Your task to perform on an android device: open the mobile data screen to see how much data has been used Image 0: 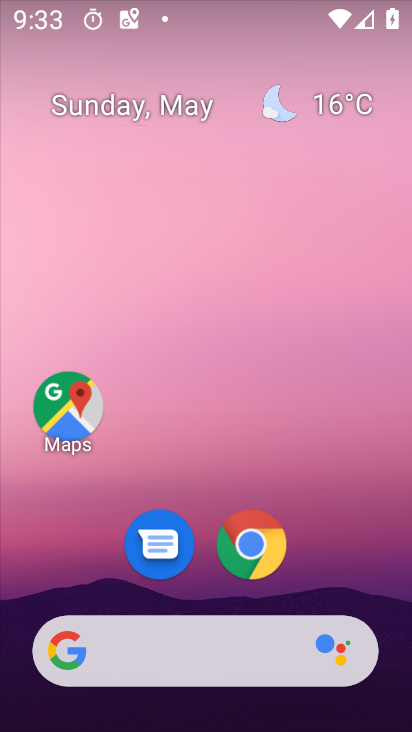
Step 0: click (298, 68)
Your task to perform on an android device: open the mobile data screen to see how much data has been used Image 1: 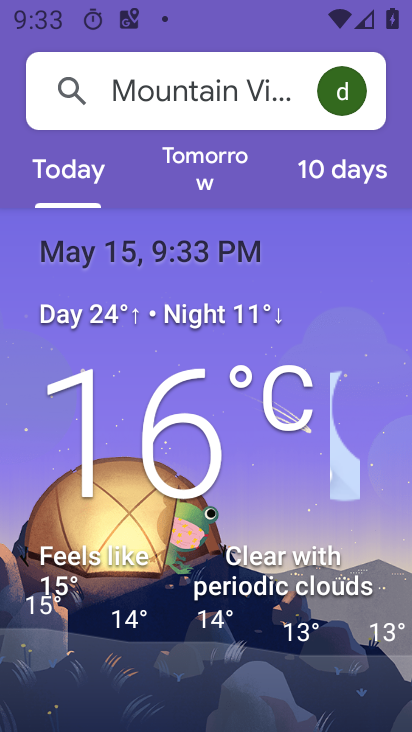
Step 1: press home button
Your task to perform on an android device: open the mobile data screen to see how much data has been used Image 2: 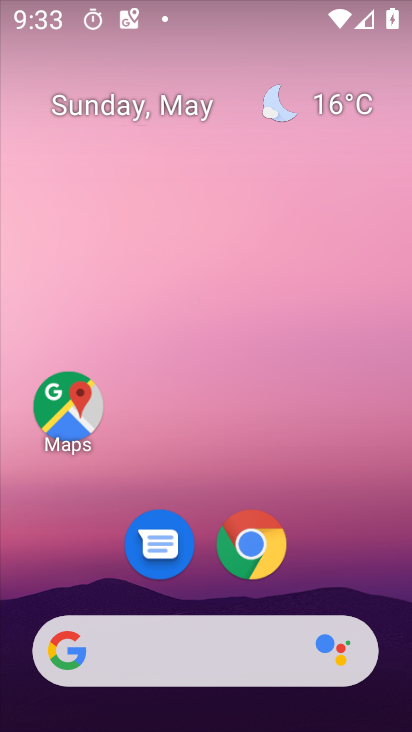
Step 2: drag from (279, 587) to (381, 37)
Your task to perform on an android device: open the mobile data screen to see how much data has been used Image 3: 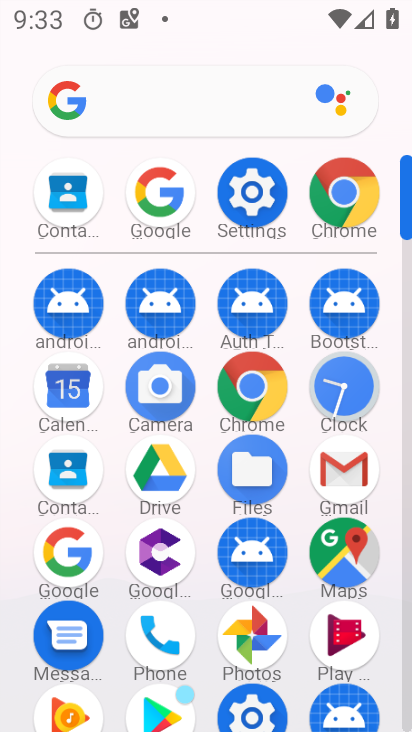
Step 3: click (247, 193)
Your task to perform on an android device: open the mobile data screen to see how much data has been used Image 4: 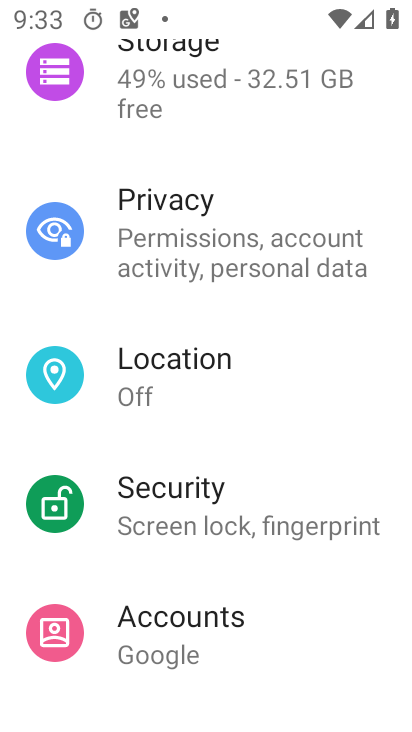
Step 4: drag from (256, 221) to (238, 625)
Your task to perform on an android device: open the mobile data screen to see how much data has been used Image 5: 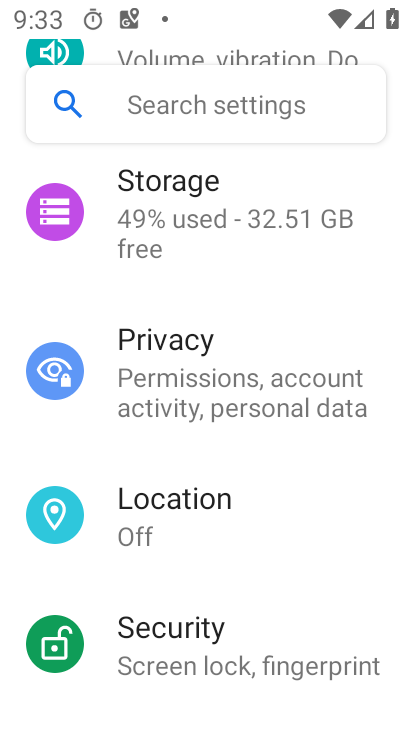
Step 5: drag from (209, 363) to (180, 699)
Your task to perform on an android device: open the mobile data screen to see how much data has been used Image 6: 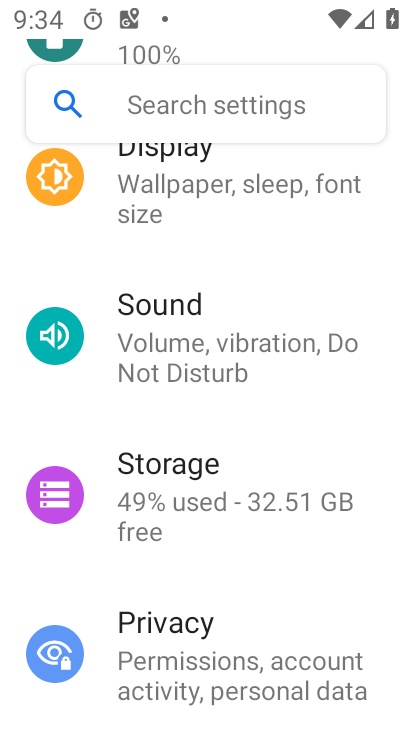
Step 6: drag from (262, 344) to (269, 731)
Your task to perform on an android device: open the mobile data screen to see how much data has been used Image 7: 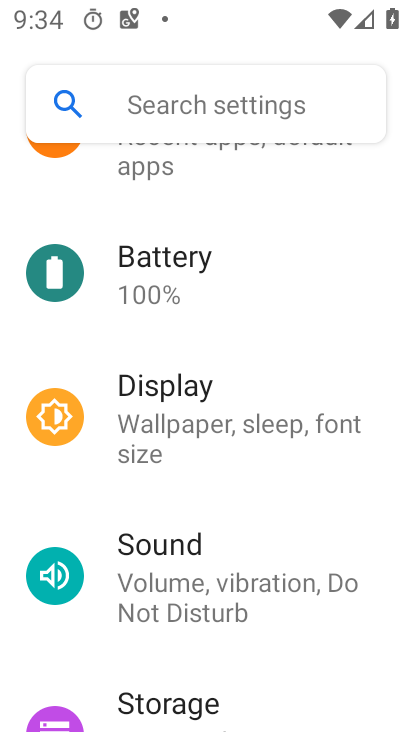
Step 7: drag from (246, 321) to (211, 731)
Your task to perform on an android device: open the mobile data screen to see how much data has been used Image 8: 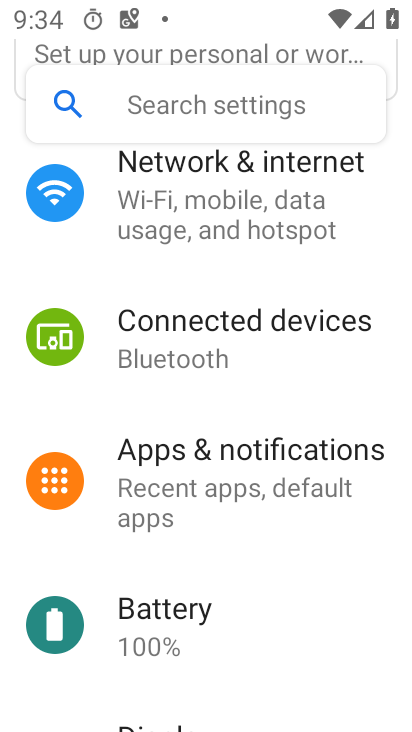
Step 8: drag from (188, 333) to (203, 729)
Your task to perform on an android device: open the mobile data screen to see how much data has been used Image 9: 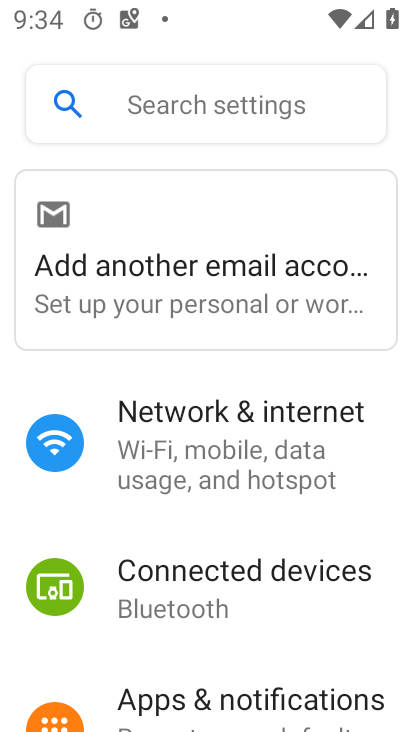
Step 9: click (167, 447)
Your task to perform on an android device: open the mobile data screen to see how much data has been used Image 10: 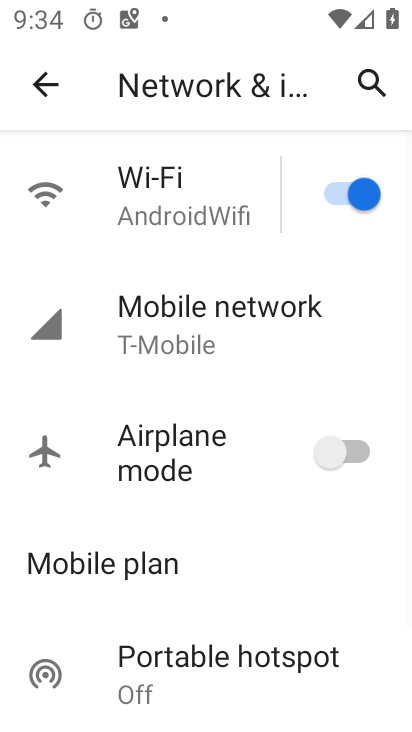
Step 10: click (179, 345)
Your task to perform on an android device: open the mobile data screen to see how much data has been used Image 11: 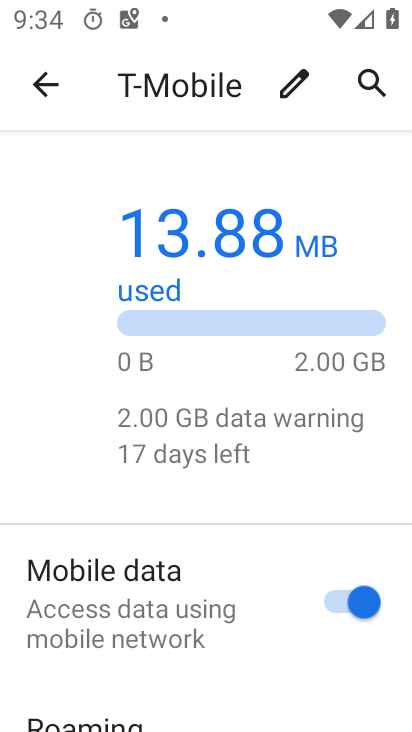
Step 11: task complete